Your task to perform on an android device: Go to Google Image 0: 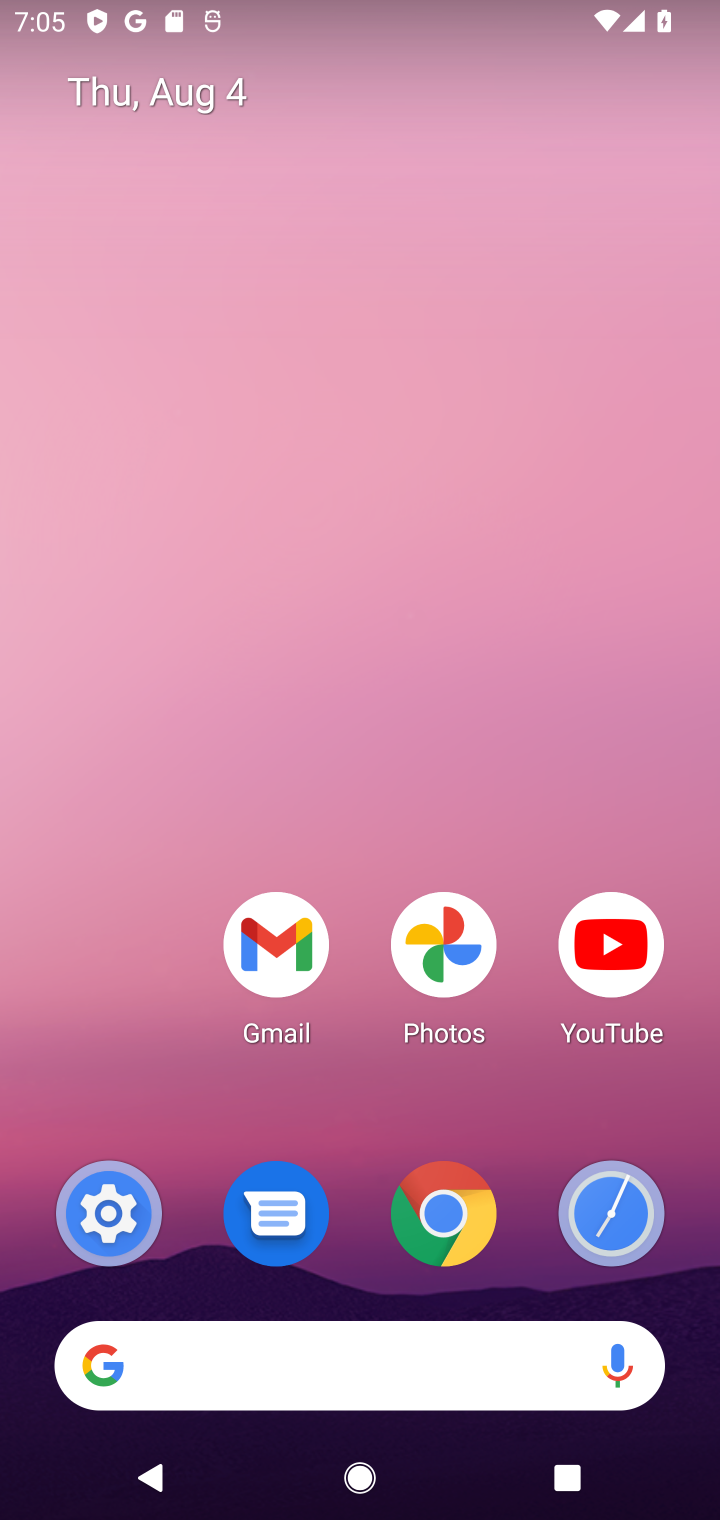
Step 0: drag from (342, 1118) to (291, 74)
Your task to perform on an android device: Go to Google Image 1: 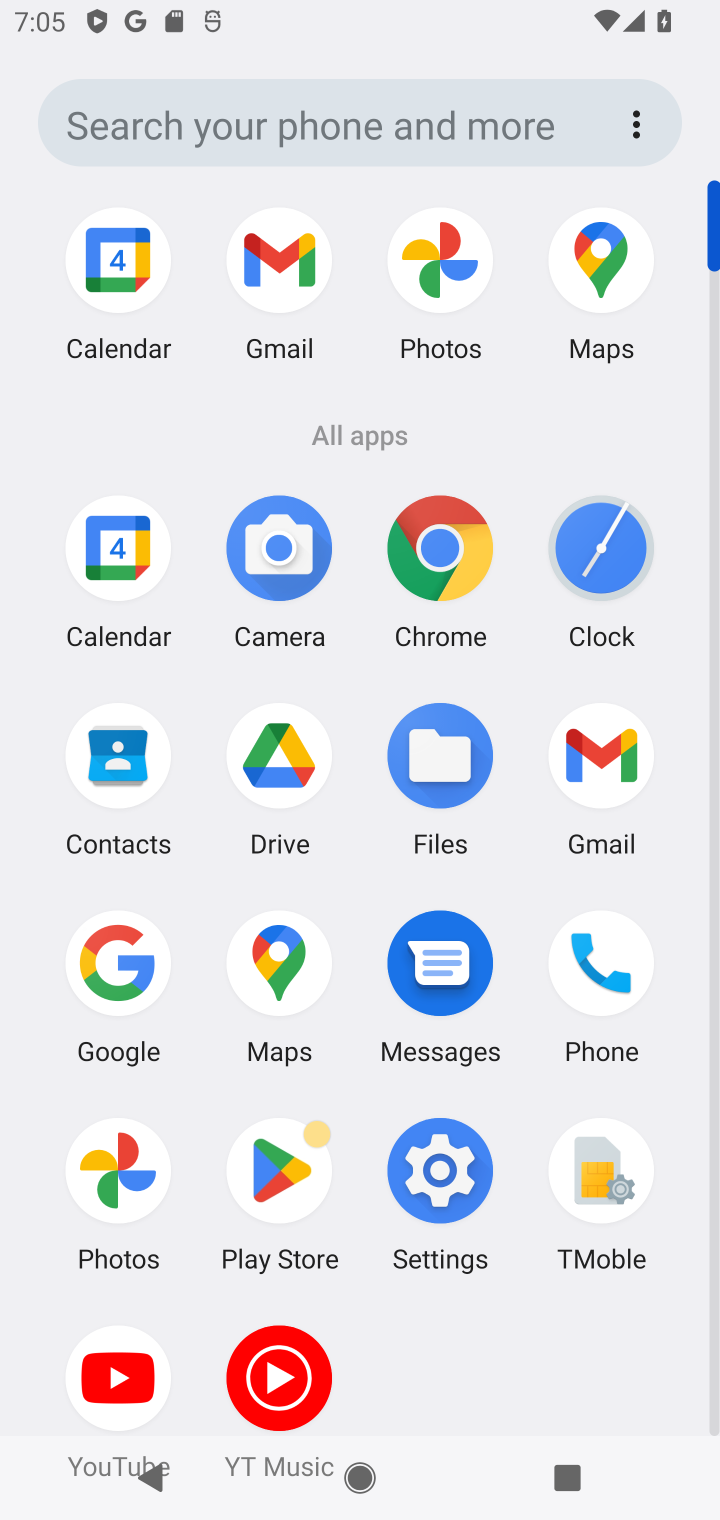
Step 1: click (79, 946)
Your task to perform on an android device: Go to Google Image 2: 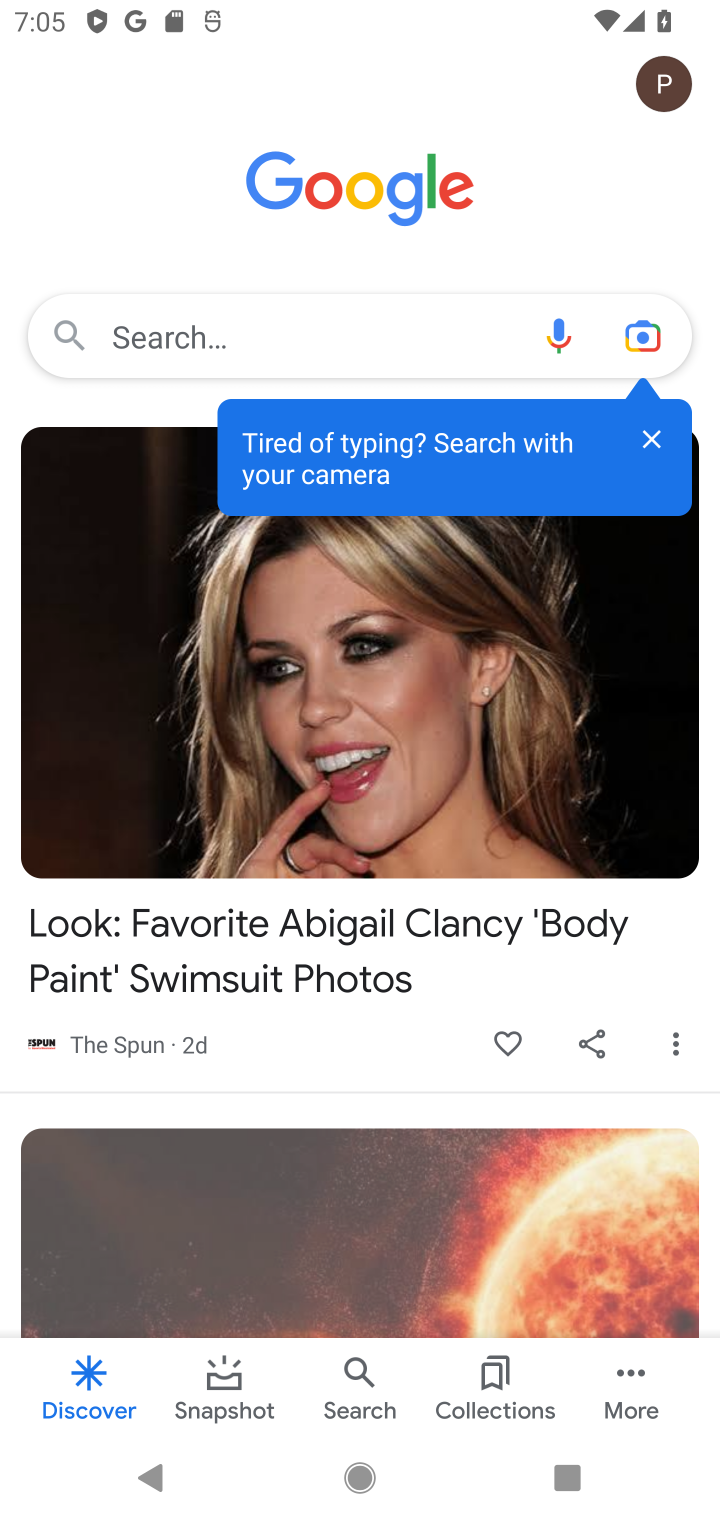
Step 2: task complete